Your task to perform on an android device: What's the weather going to be this weekend? Image 0: 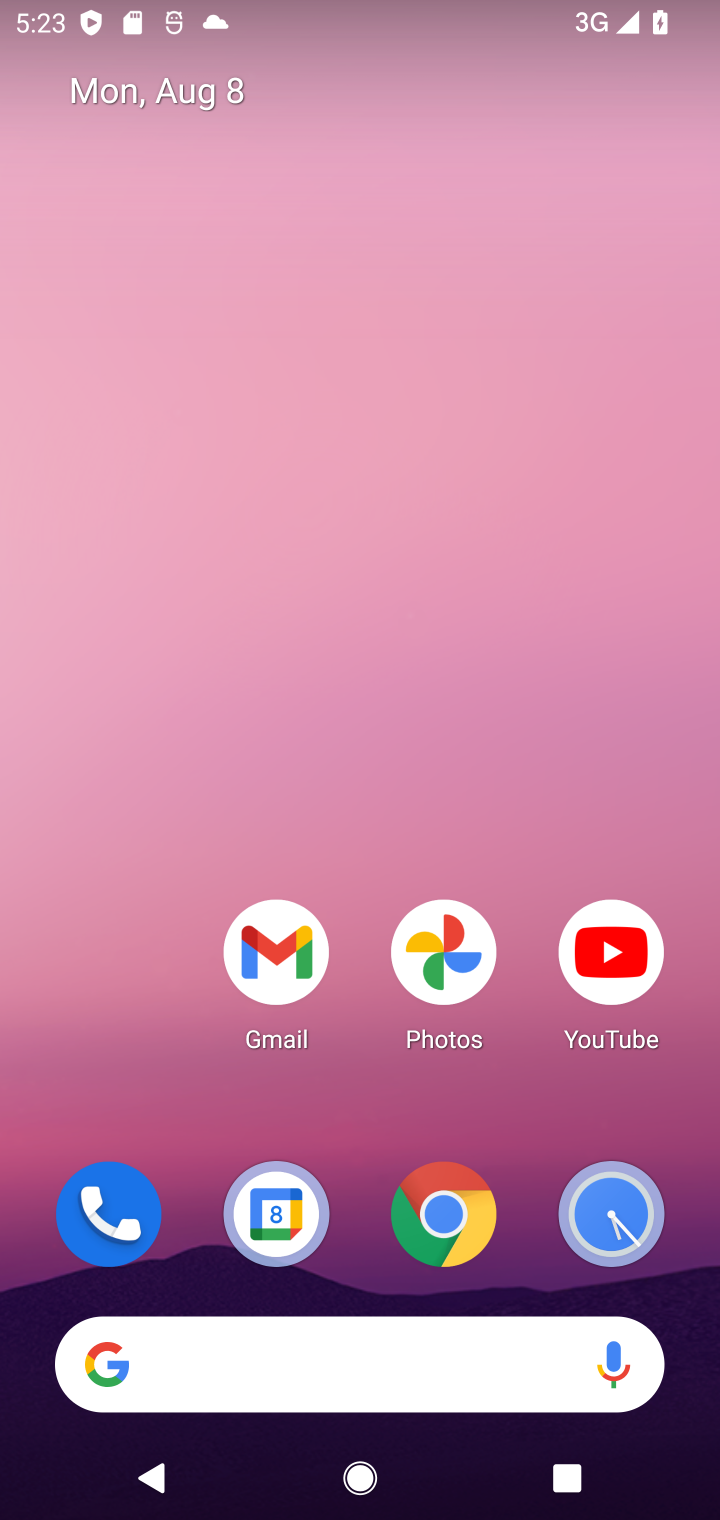
Step 0: drag from (342, 1282) to (338, 120)
Your task to perform on an android device: What's the weather going to be this weekend? Image 1: 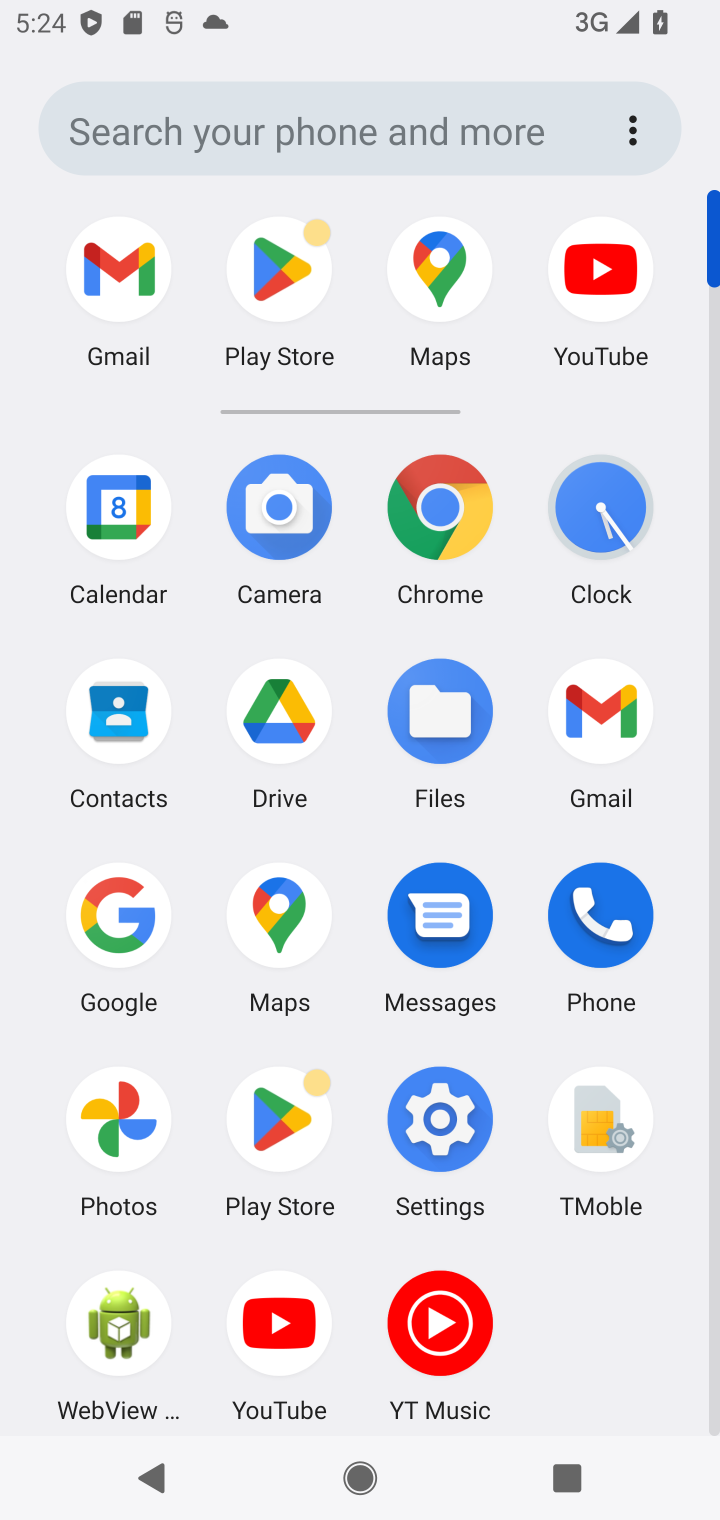
Step 1: click (134, 914)
Your task to perform on an android device: What's the weather going to be this weekend? Image 2: 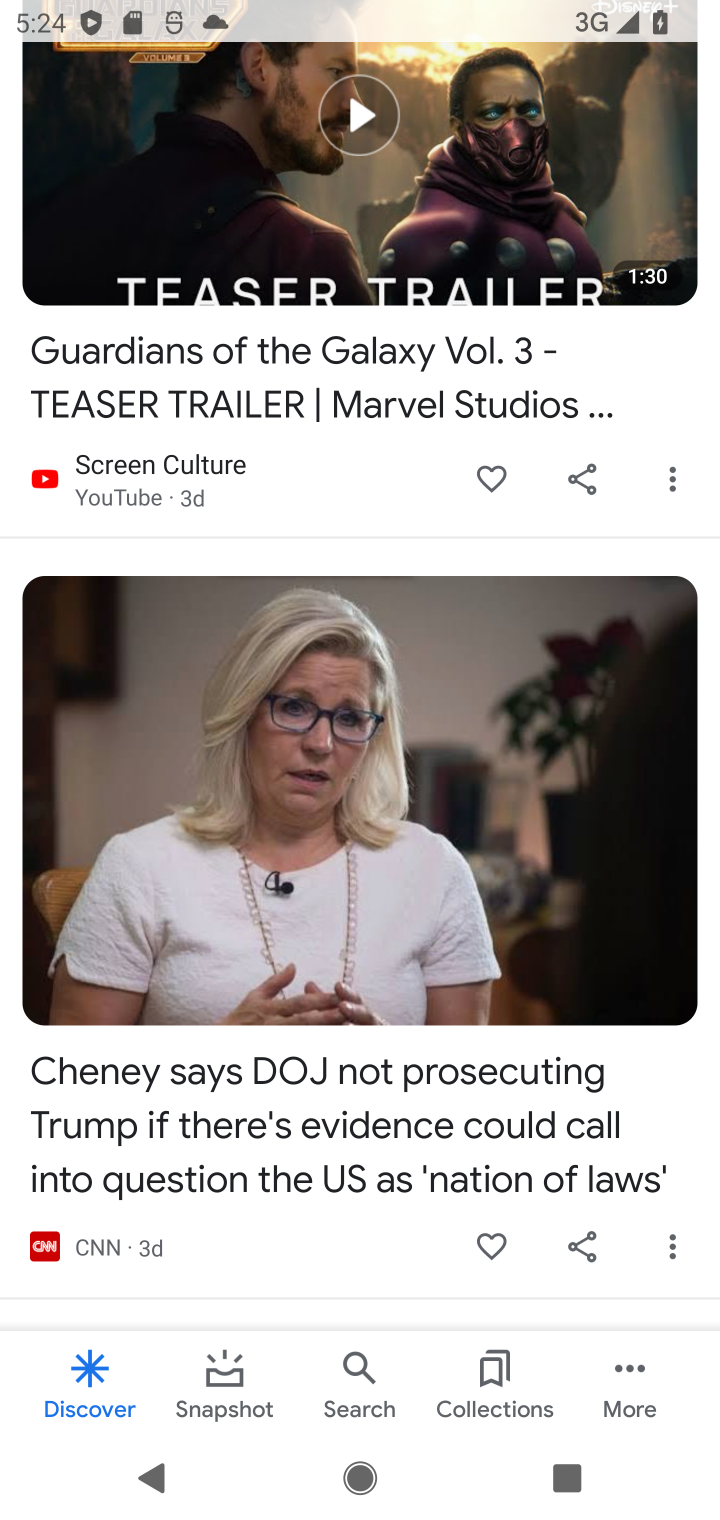
Step 2: drag from (445, 386) to (521, 1323)
Your task to perform on an android device: What's the weather going to be this weekend? Image 3: 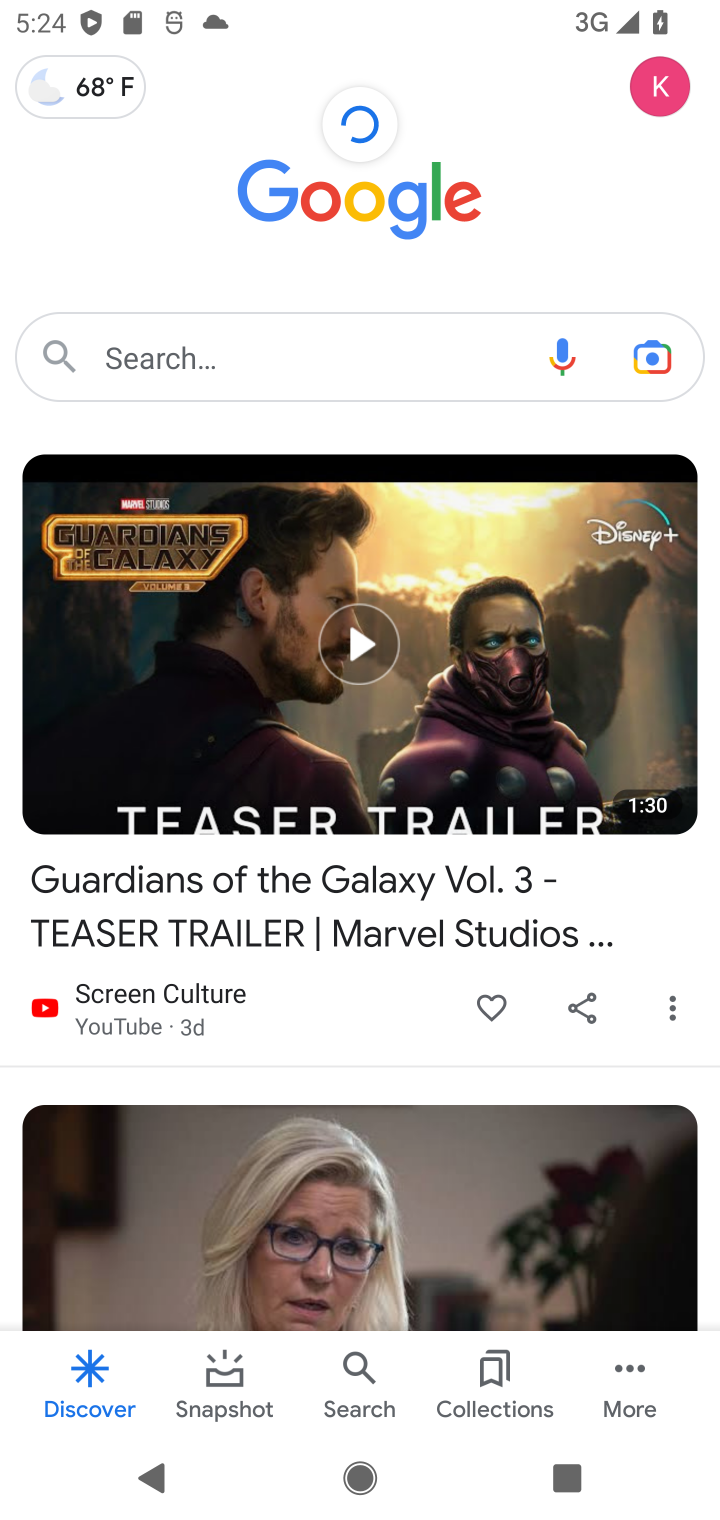
Step 3: click (226, 358)
Your task to perform on an android device: What's the weather going to be this weekend? Image 4: 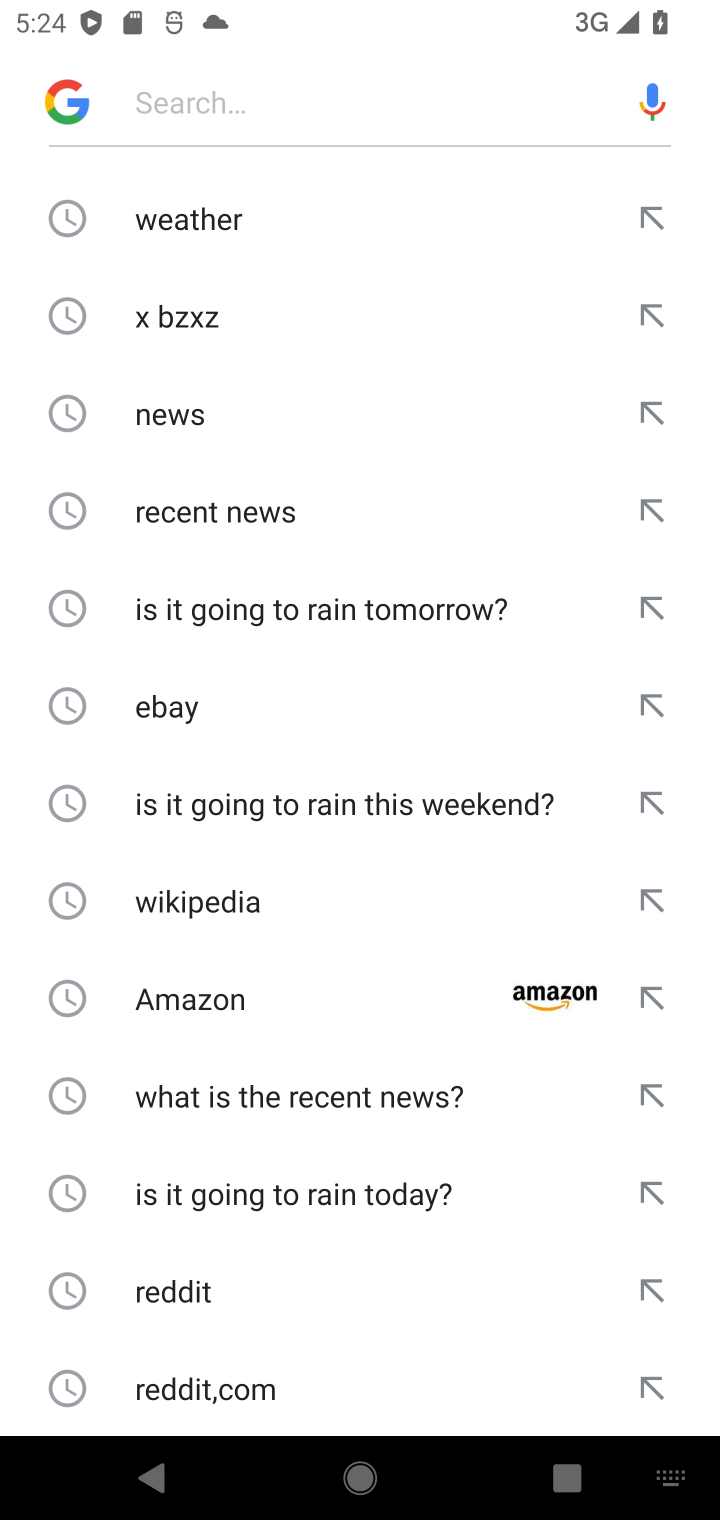
Step 4: click (207, 220)
Your task to perform on an android device: What's the weather going to be this weekend? Image 5: 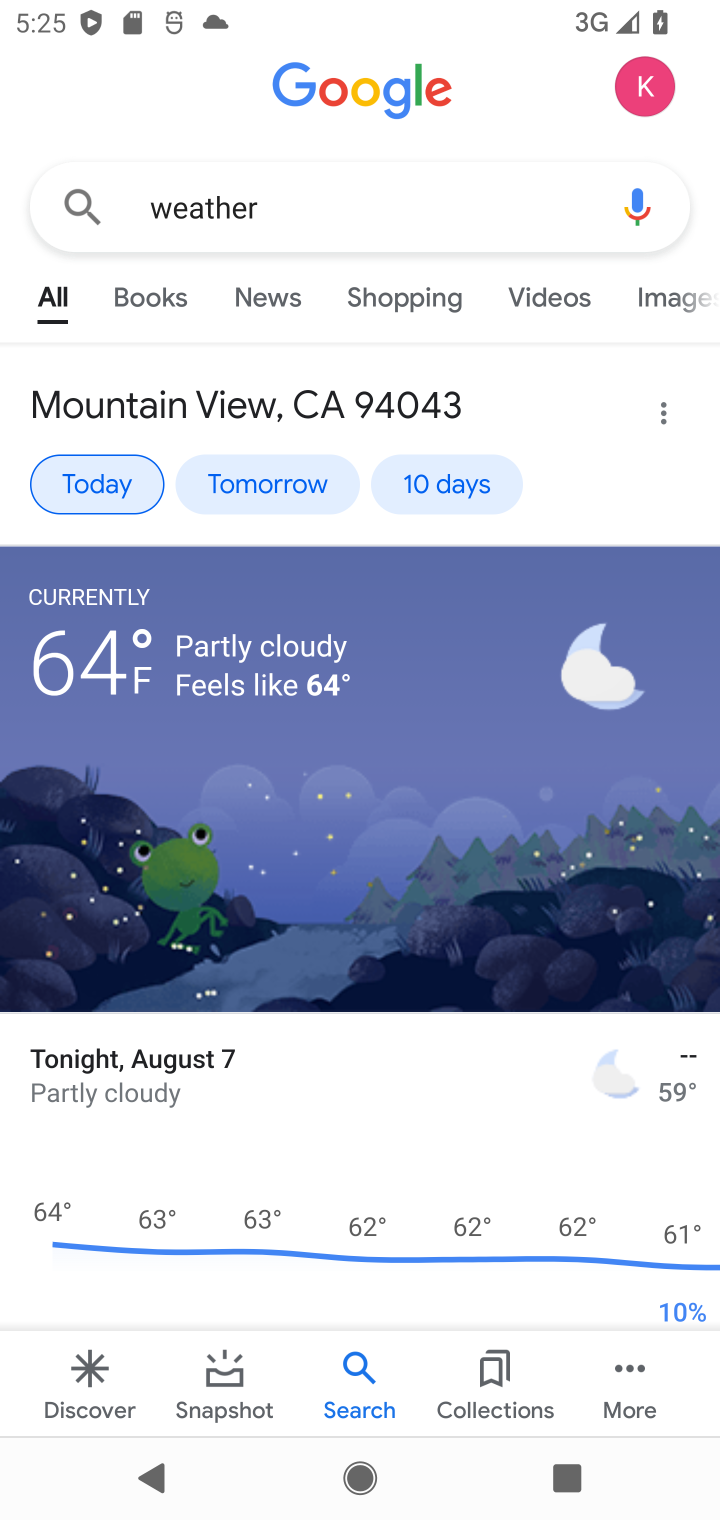
Step 5: click (447, 484)
Your task to perform on an android device: What's the weather going to be this weekend? Image 6: 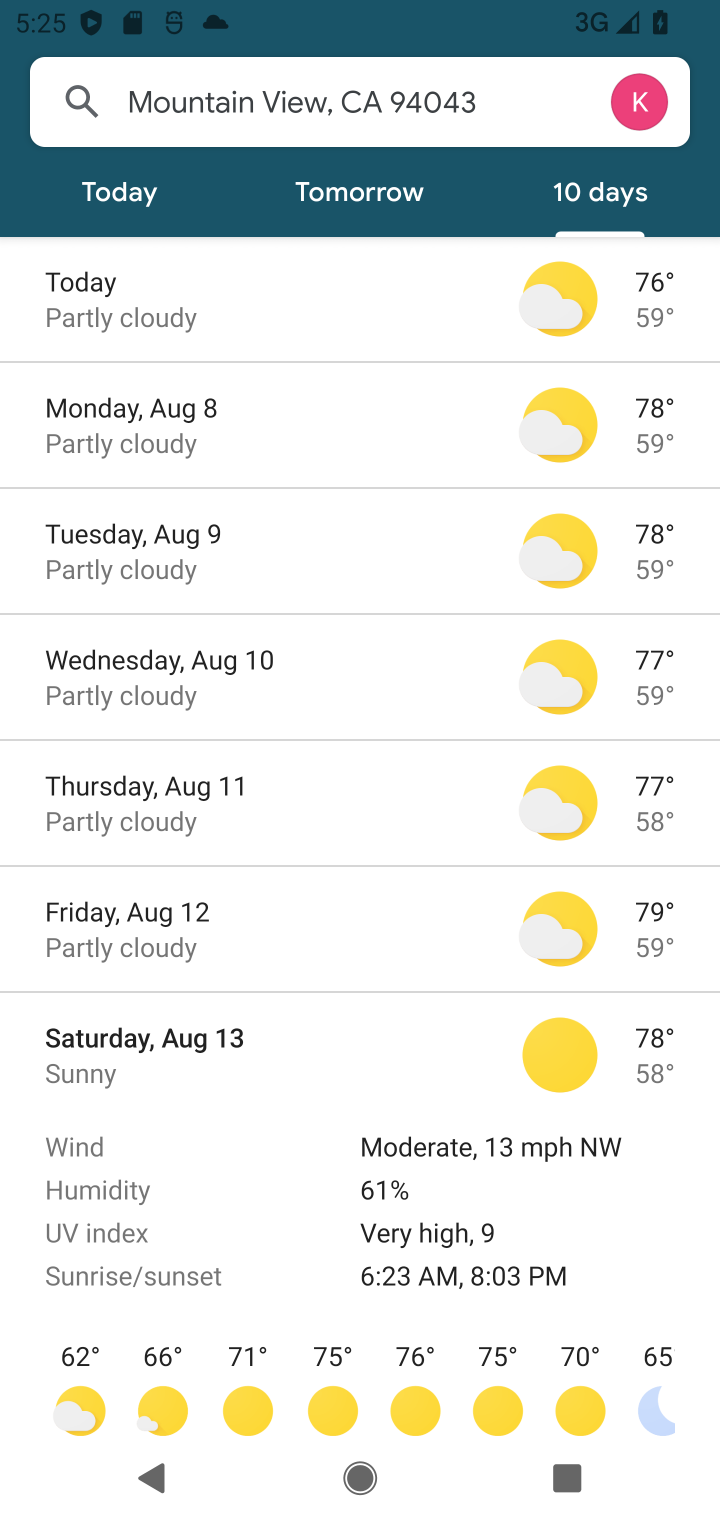
Step 6: task complete